Your task to perform on an android device: allow notifications from all sites in the chrome app Image 0: 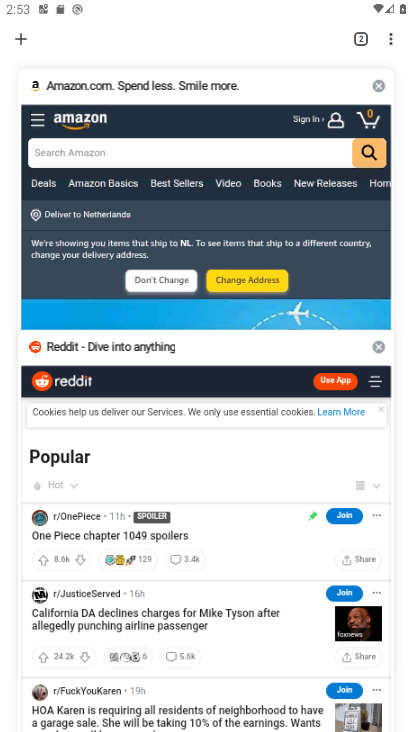
Step 0: press home button
Your task to perform on an android device: allow notifications from all sites in the chrome app Image 1: 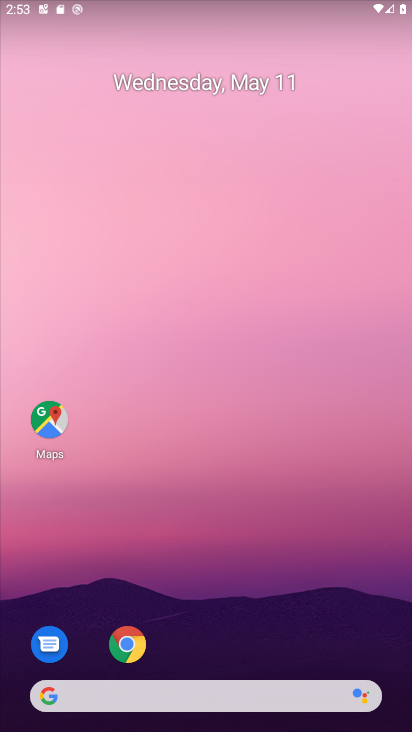
Step 1: drag from (168, 665) to (119, 14)
Your task to perform on an android device: allow notifications from all sites in the chrome app Image 2: 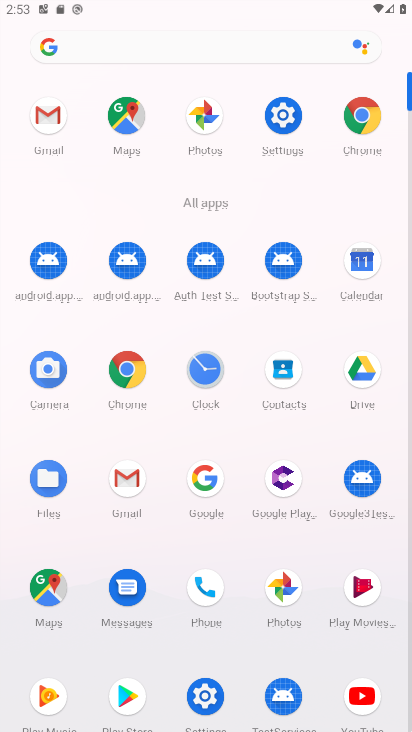
Step 2: click (132, 374)
Your task to perform on an android device: allow notifications from all sites in the chrome app Image 3: 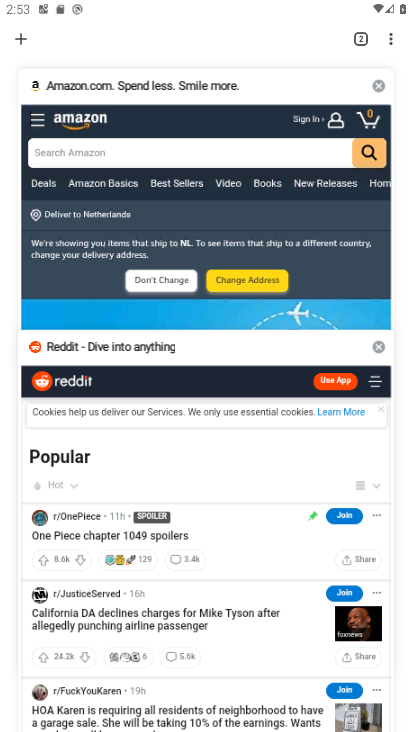
Step 3: click (391, 55)
Your task to perform on an android device: allow notifications from all sites in the chrome app Image 4: 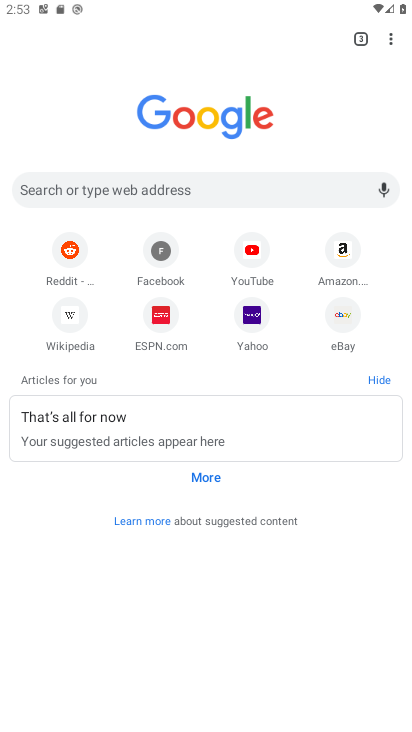
Step 4: click (396, 39)
Your task to perform on an android device: allow notifications from all sites in the chrome app Image 5: 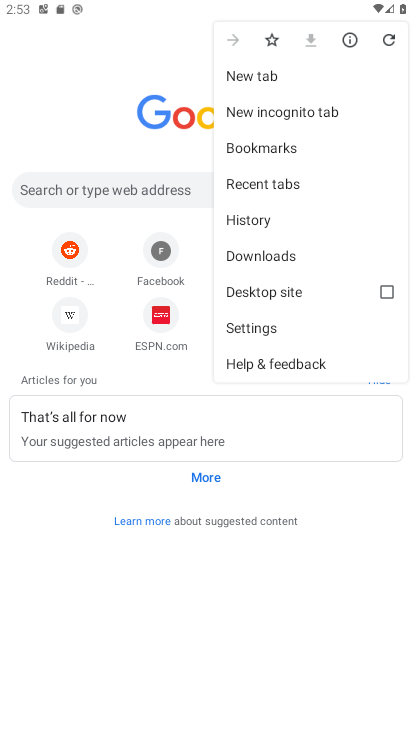
Step 5: click (258, 338)
Your task to perform on an android device: allow notifications from all sites in the chrome app Image 6: 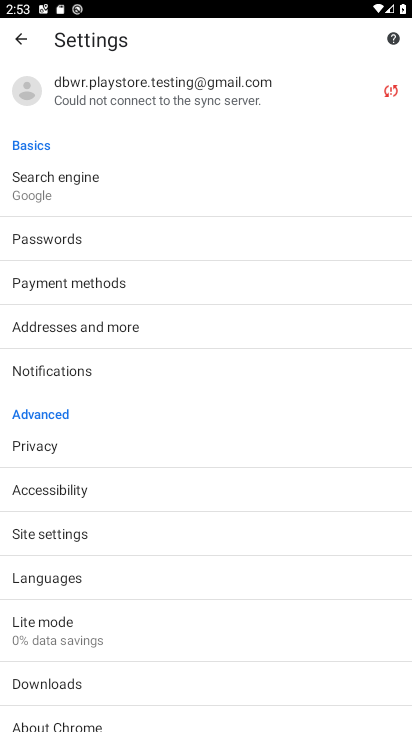
Step 6: click (81, 369)
Your task to perform on an android device: allow notifications from all sites in the chrome app Image 7: 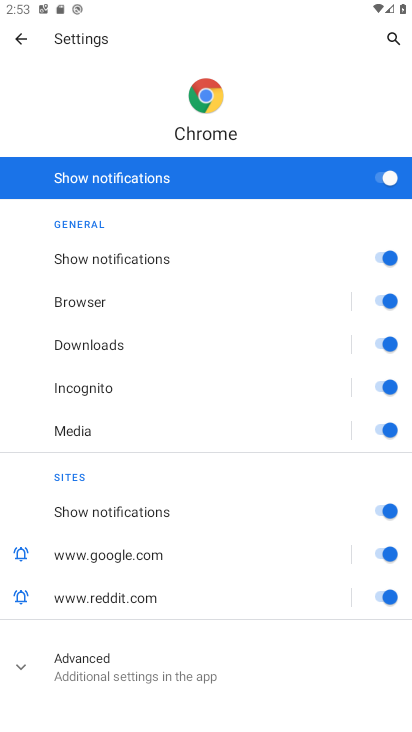
Step 7: click (17, 38)
Your task to perform on an android device: allow notifications from all sites in the chrome app Image 8: 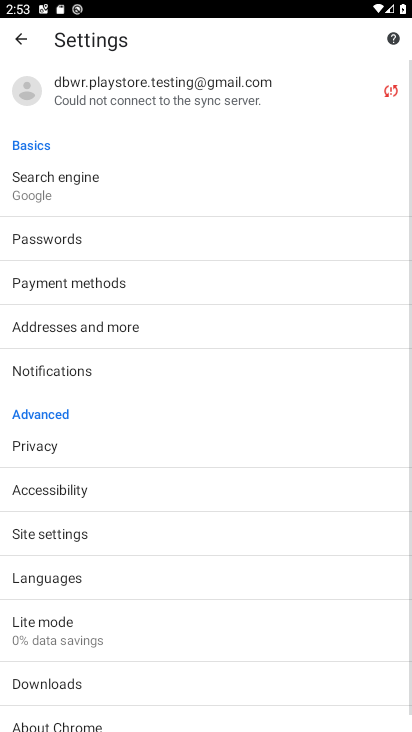
Step 8: click (57, 534)
Your task to perform on an android device: allow notifications from all sites in the chrome app Image 9: 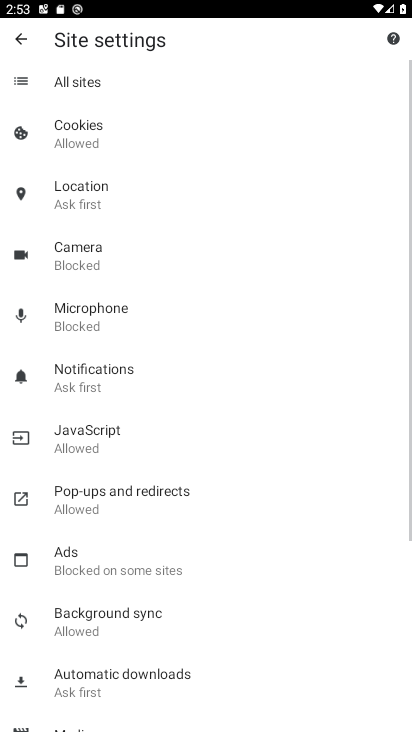
Step 9: click (118, 373)
Your task to perform on an android device: allow notifications from all sites in the chrome app Image 10: 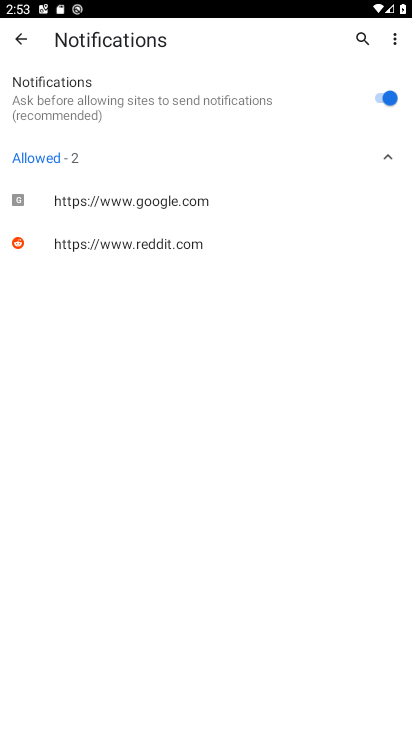
Step 10: task complete